Your task to perform on an android device: Set the phone to "Do not disturb". Image 0: 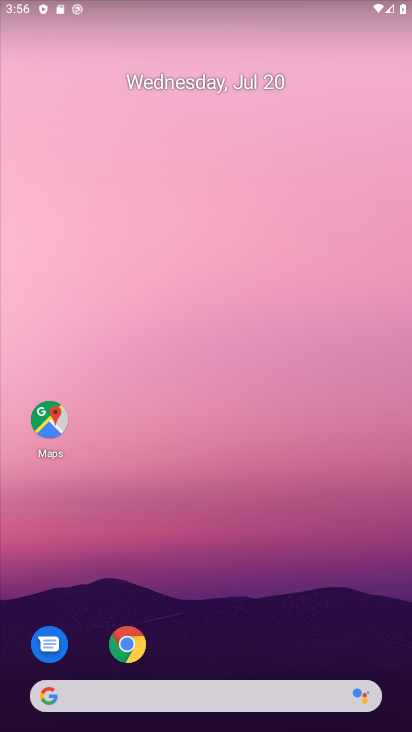
Step 0: drag from (193, 668) to (256, 138)
Your task to perform on an android device: Set the phone to "Do not disturb". Image 1: 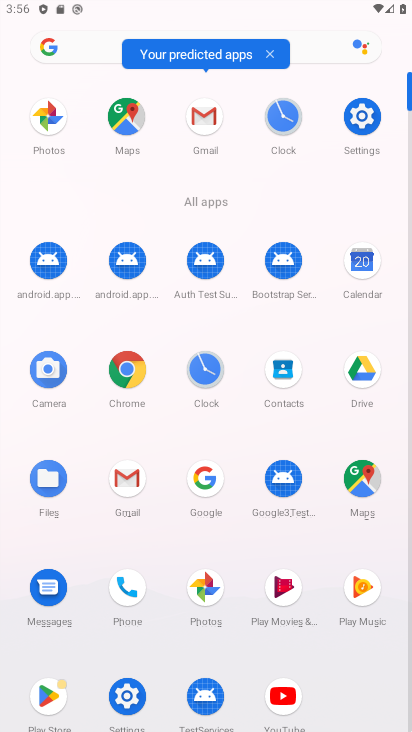
Step 1: drag from (207, 15) to (193, 400)
Your task to perform on an android device: Set the phone to "Do not disturb". Image 2: 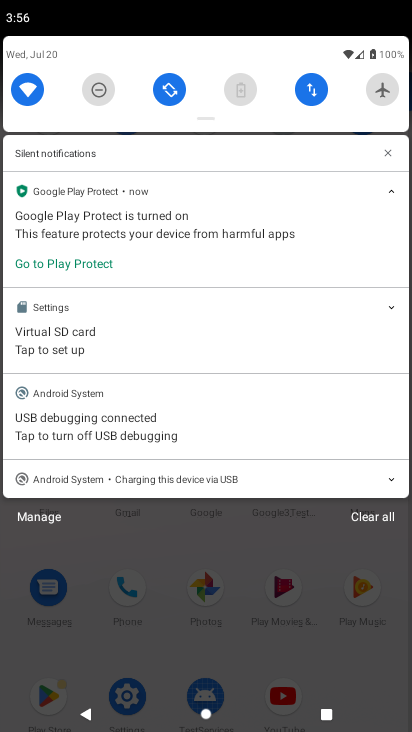
Step 2: click (99, 97)
Your task to perform on an android device: Set the phone to "Do not disturb". Image 3: 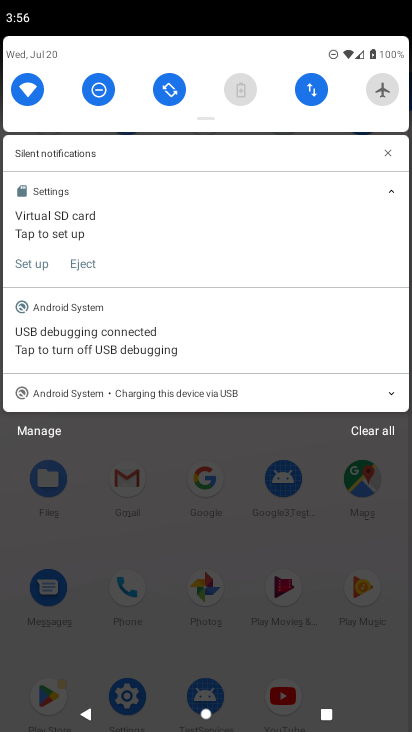
Step 3: task complete